Your task to perform on an android device: Open eBay Image 0: 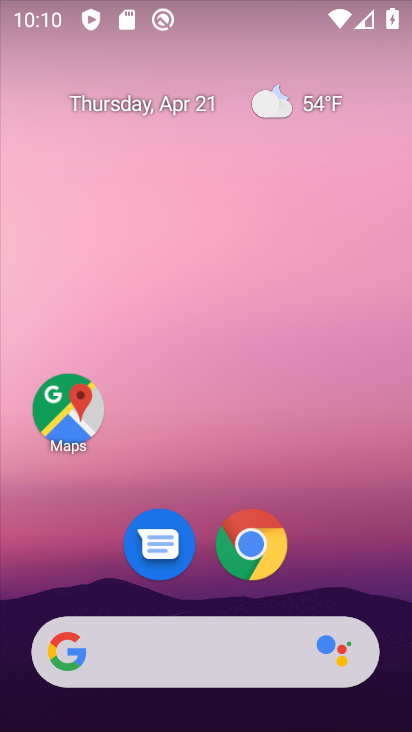
Step 0: click (248, 552)
Your task to perform on an android device: Open eBay Image 1: 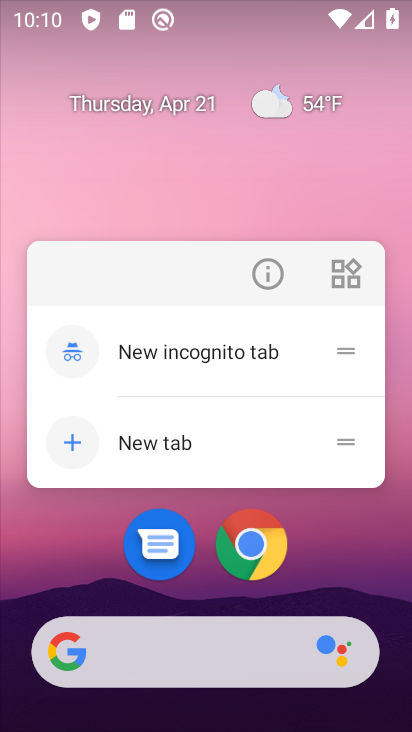
Step 1: click (268, 270)
Your task to perform on an android device: Open eBay Image 2: 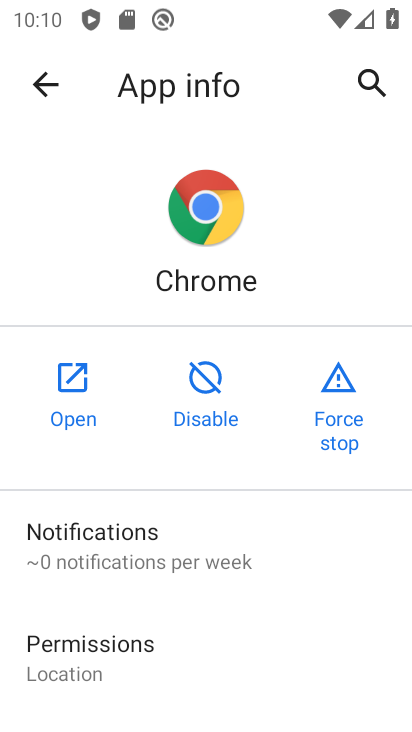
Step 2: click (72, 369)
Your task to perform on an android device: Open eBay Image 3: 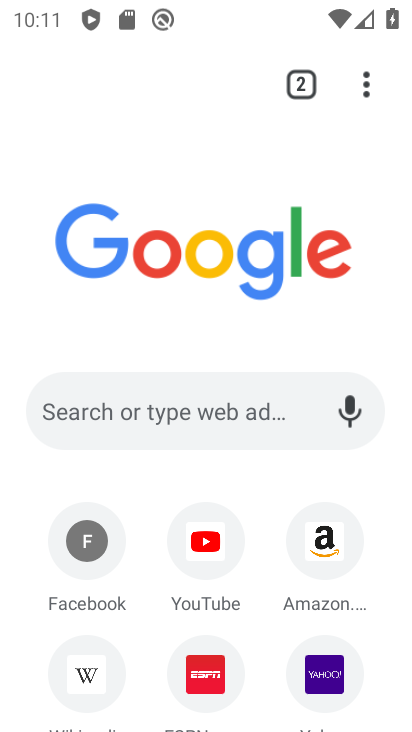
Step 3: drag from (93, 592) to (285, 336)
Your task to perform on an android device: Open eBay Image 4: 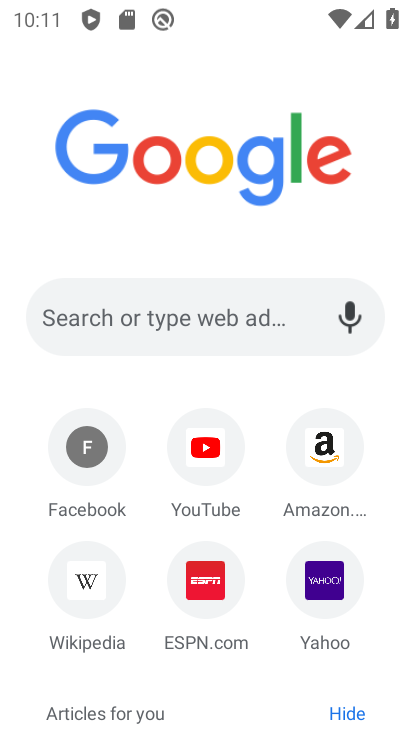
Step 4: drag from (50, 666) to (281, 333)
Your task to perform on an android device: Open eBay Image 5: 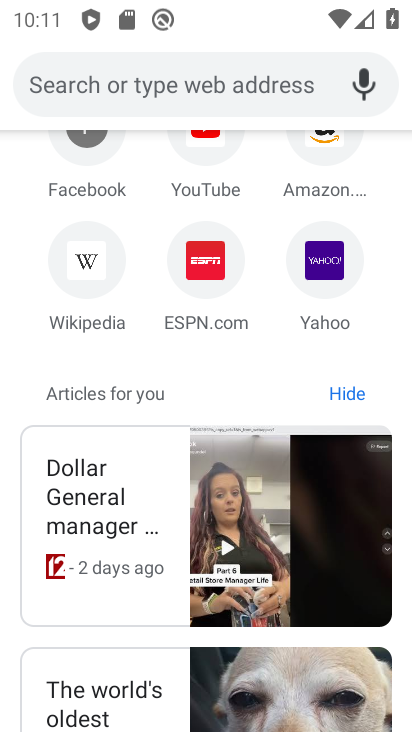
Step 5: drag from (324, 285) to (294, 550)
Your task to perform on an android device: Open eBay Image 6: 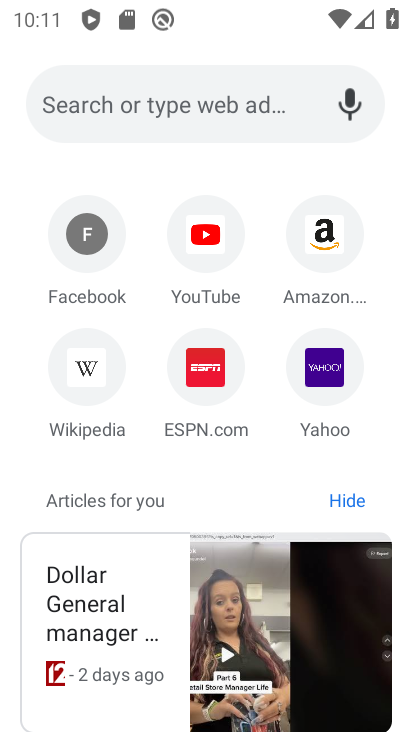
Step 6: click (202, 103)
Your task to perform on an android device: Open eBay Image 7: 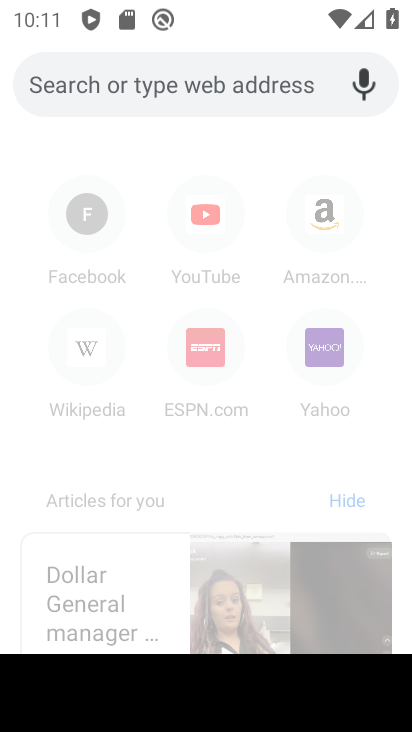
Step 7: type "eBay"
Your task to perform on an android device: Open eBay Image 8: 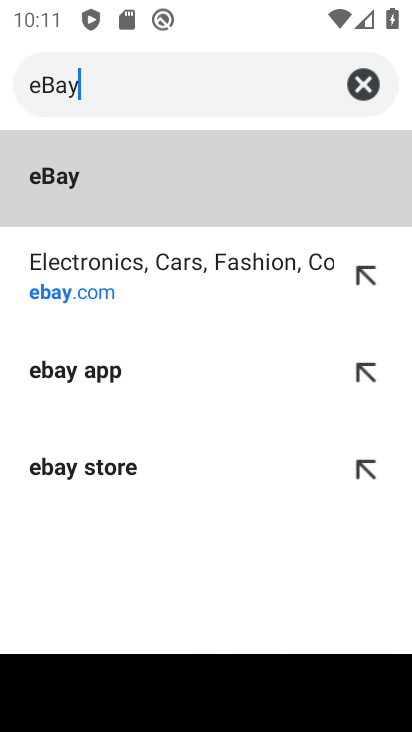
Step 8: type ""
Your task to perform on an android device: Open eBay Image 9: 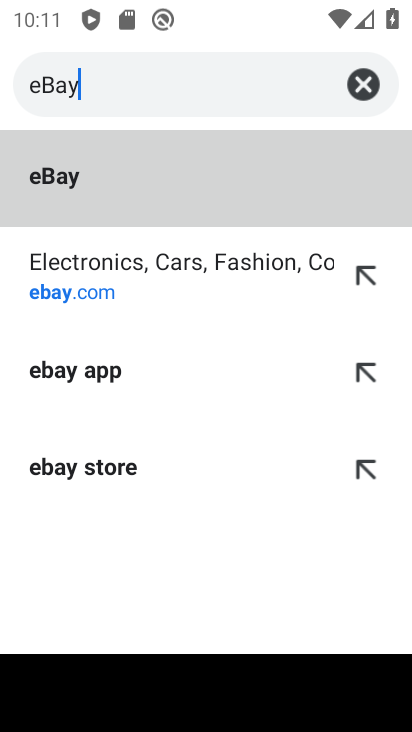
Step 9: click (160, 162)
Your task to perform on an android device: Open eBay Image 10: 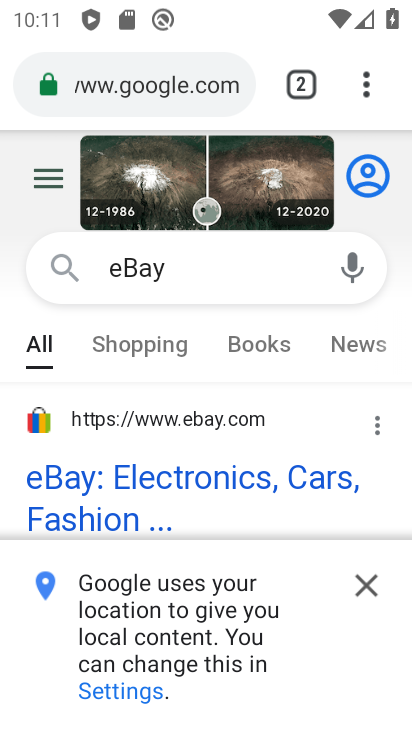
Step 10: task complete